Your task to perform on an android device: empty trash in google photos Image 0: 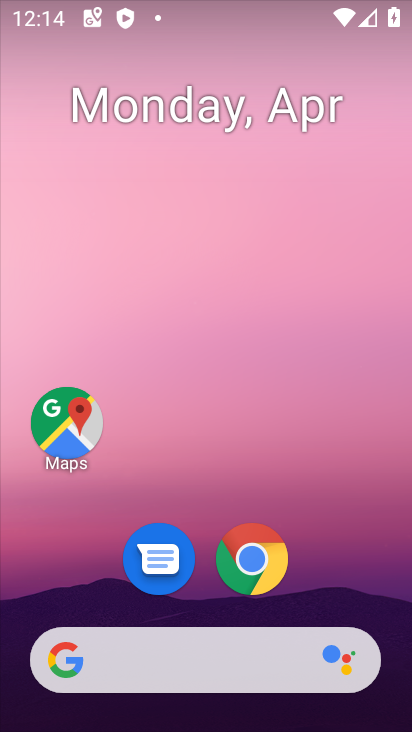
Step 0: drag from (204, 596) to (259, 238)
Your task to perform on an android device: empty trash in google photos Image 1: 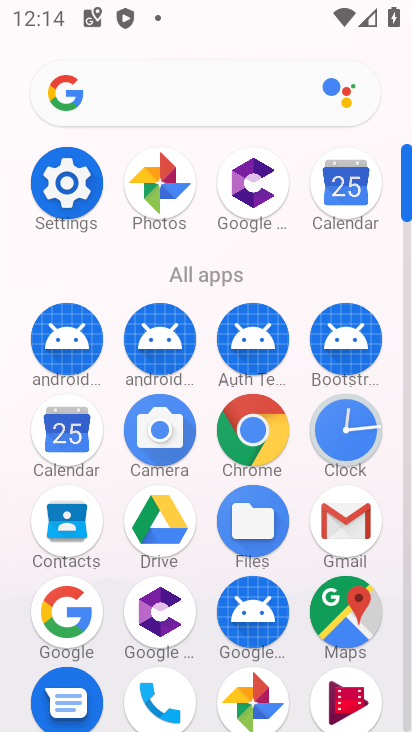
Step 1: click (247, 689)
Your task to perform on an android device: empty trash in google photos Image 2: 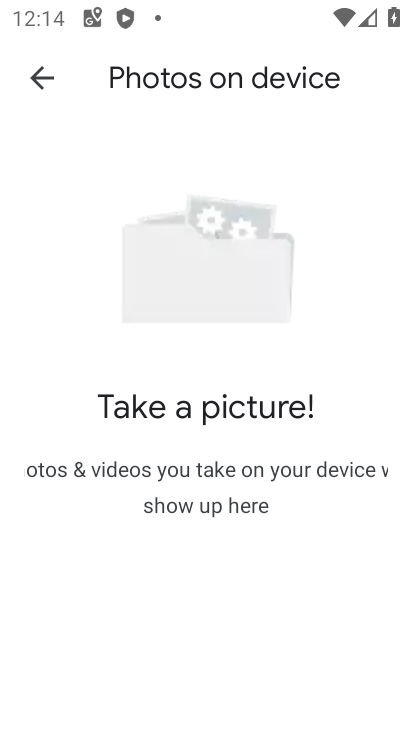
Step 2: click (28, 81)
Your task to perform on an android device: empty trash in google photos Image 3: 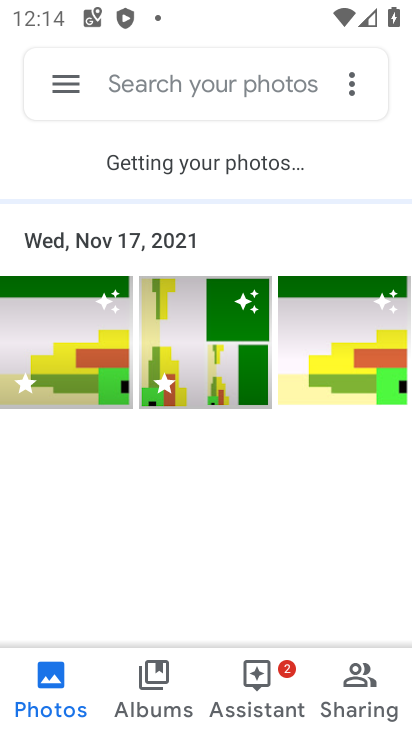
Step 3: click (77, 103)
Your task to perform on an android device: empty trash in google photos Image 4: 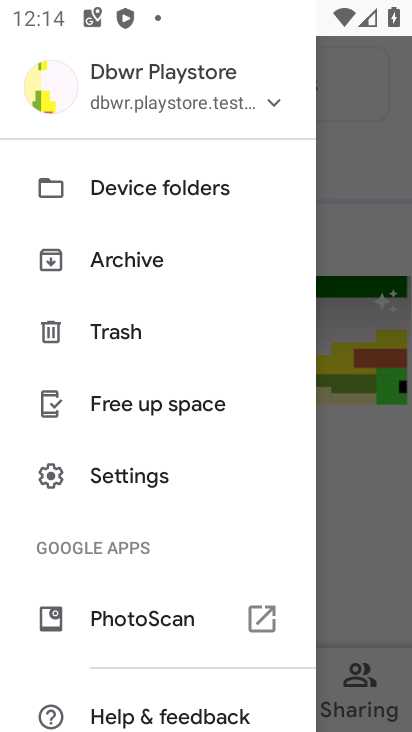
Step 4: click (180, 340)
Your task to perform on an android device: empty trash in google photos Image 5: 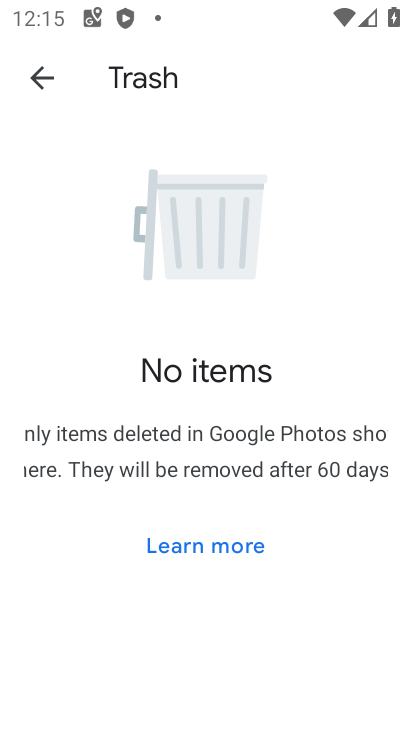
Step 5: task complete